Your task to perform on an android device: Open calendar and show me the first week of next month Image 0: 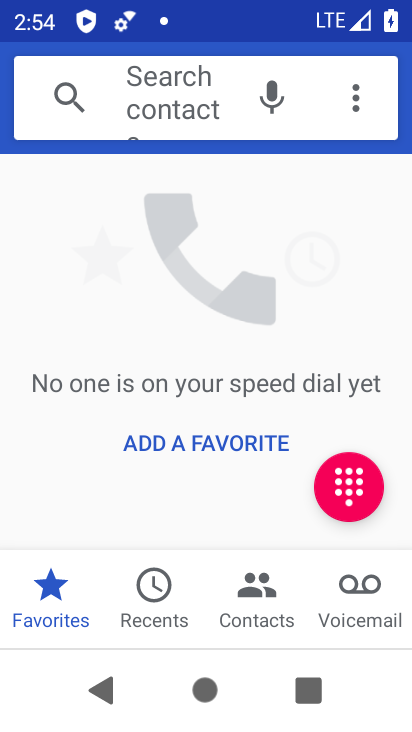
Step 0: press home button
Your task to perform on an android device: Open calendar and show me the first week of next month Image 1: 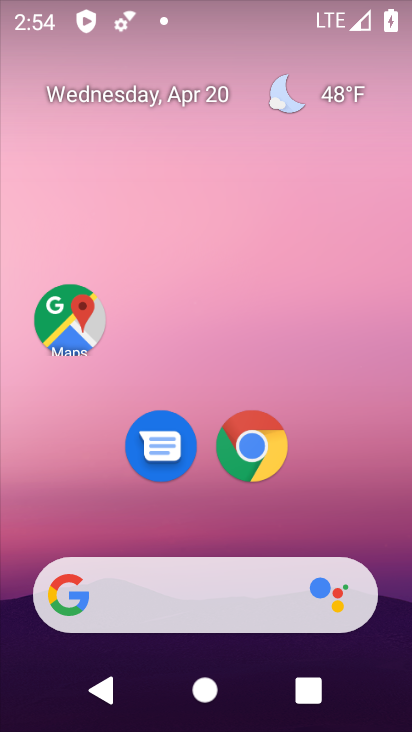
Step 1: drag from (296, 504) to (325, 137)
Your task to perform on an android device: Open calendar and show me the first week of next month Image 2: 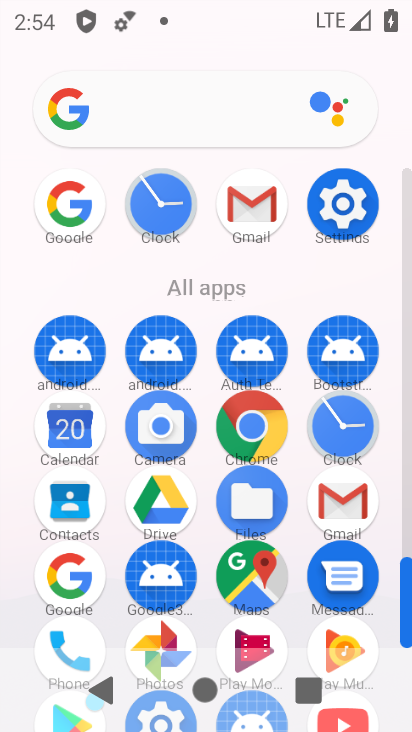
Step 2: click (72, 435)
Your task to perform on an android device: Open calendar and show me the first week of next month Image 3: 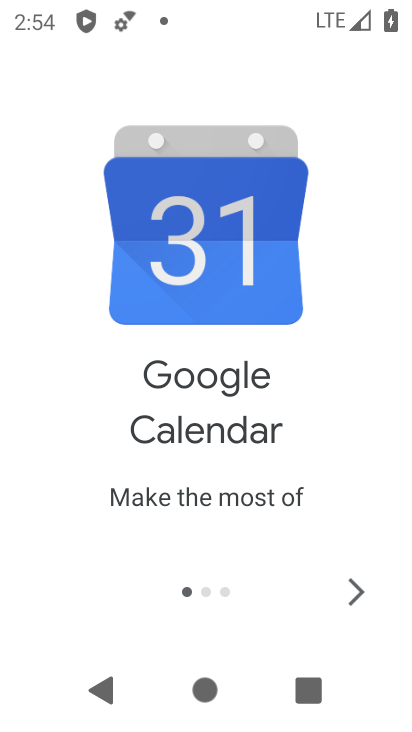
Step 3: click (357, 594)
Your task to perform on an android device: Open calendar and show me the first week of next month Image 4: 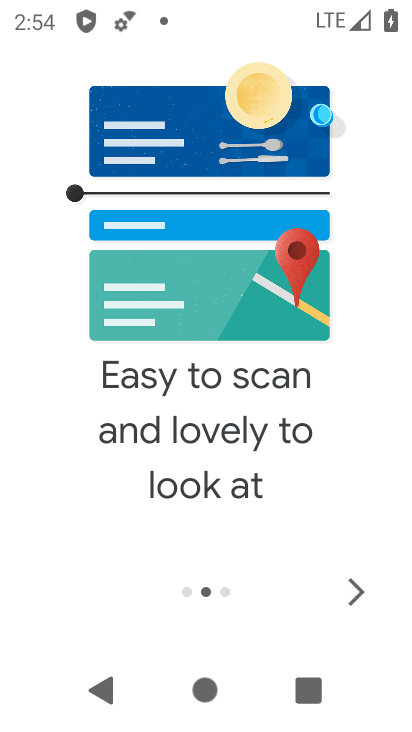
Step 4: click (357, 594)
Your task to perform on an android device: Open calendar and show me the first week of next month Image 5: 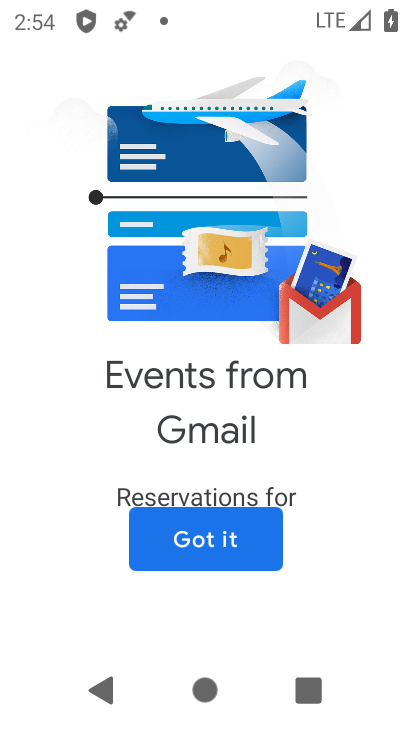
Step 5: click (229, 546)
Your task to perform on an android device: Open calendar and show me the first week of next month Image 6: 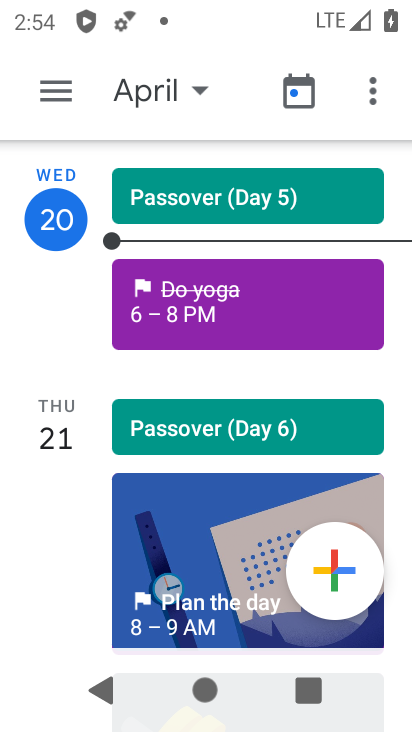
Step 6: click (201, 89)
Your task to perform on an android device: Open calendar and show me the first week of next month Image 7: 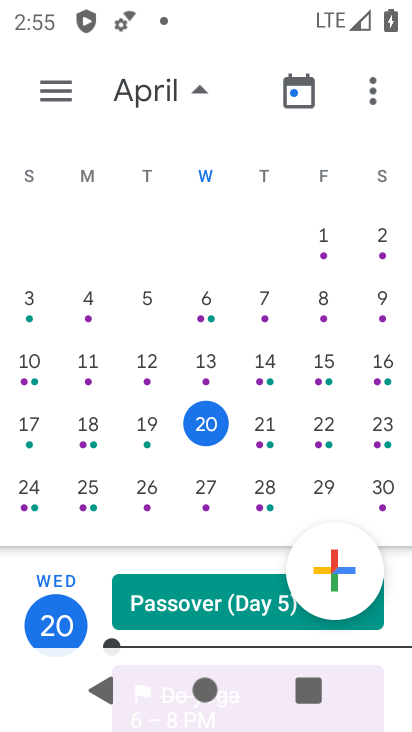
Step 7: drag from (311, 277) to (9, 311)
Your task to perform on an android device: Open calendar and show me the first week of next month Image 8: 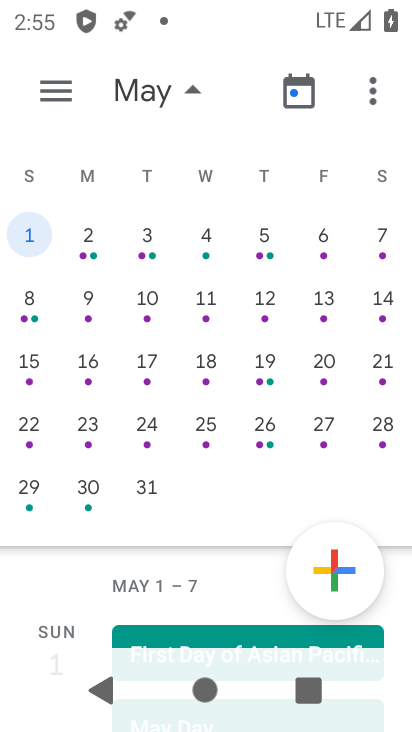
Step 8: click (89, 238)
Your task to perform on an android device: Open calendar and show me the first week of next month Image 9: 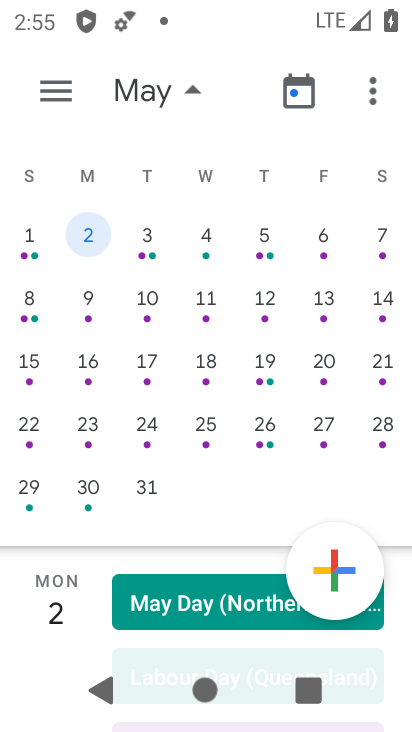
Step 9: click (65, 86)
Your task to perform on an android device: Open calendar and show me the first week of next month Image 10: 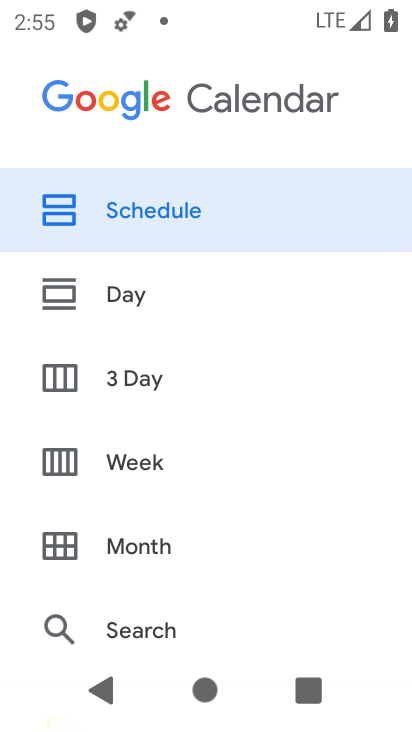
Step 10: click (127, 459)
Your task to perform on an android device: Open calendar and show me the first week of next month Image 11: 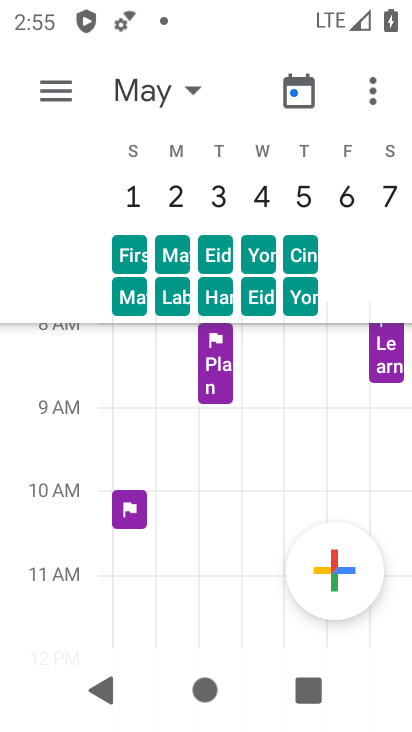
Step 11: task complete